Your task to perform on an android device: turn off translation in the chrome app Image 0: 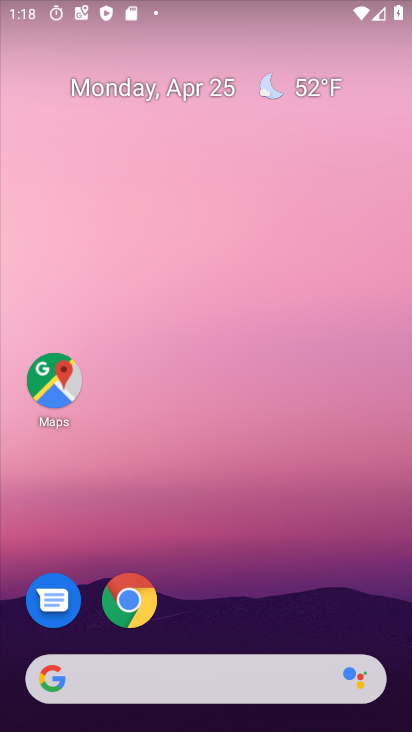
Step 0: press home button
Your task to perform on an android device: turn off translation in the chrome app Image 1: 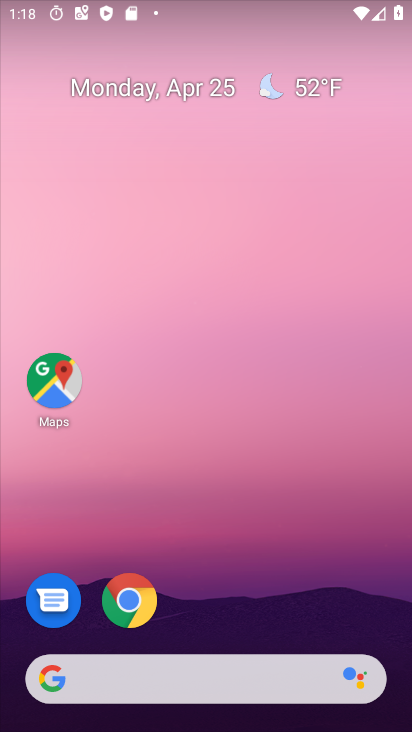
Step 1: drag from (138, 679) to (212, 162)
Your task to perform on an android device: turn off translation in the chrome app Image 2: 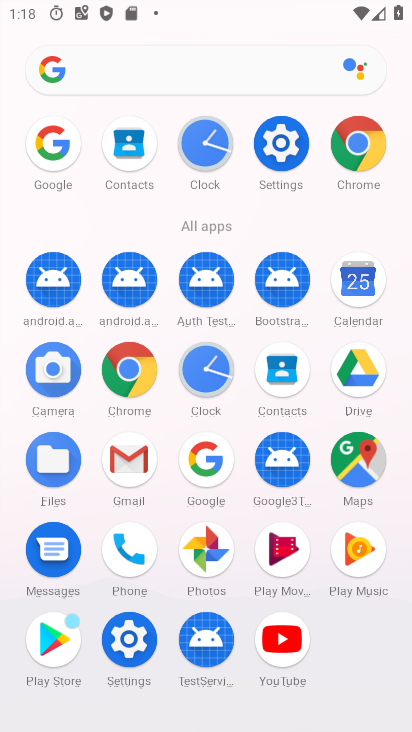
Step 2: click (355, 161)
Your task to perform on an android device: turn off translation in the chrome app Image 3: 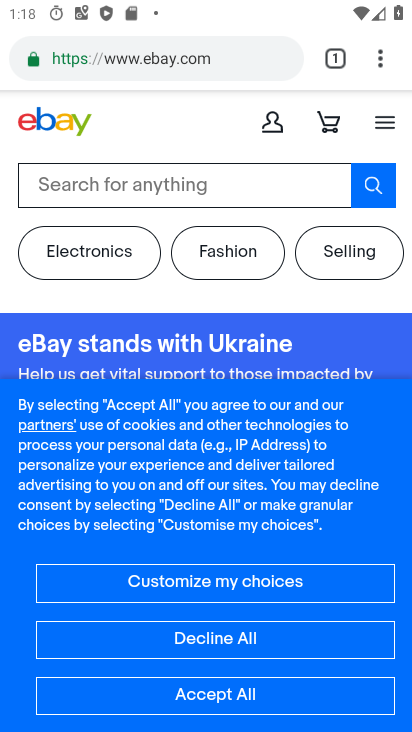
Step 3: drag from (380, 69) to (184, 621)
Your task to perform on an android device: turn off translation in the chrome app Image 4: 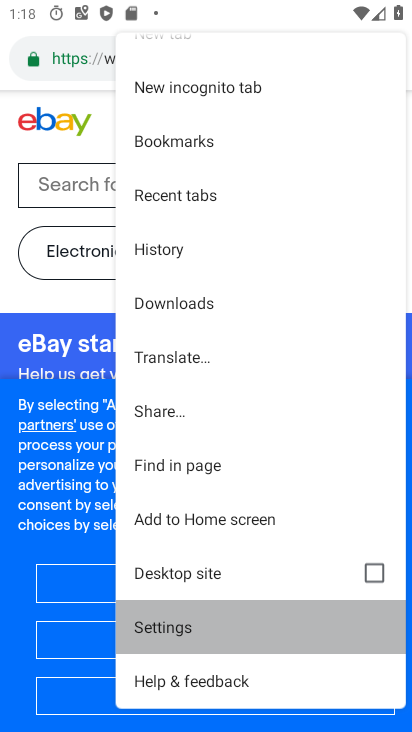
Step 4: click (186, 621)
Your task to perform on an android device: turn off translation in the chrome app Image 5: 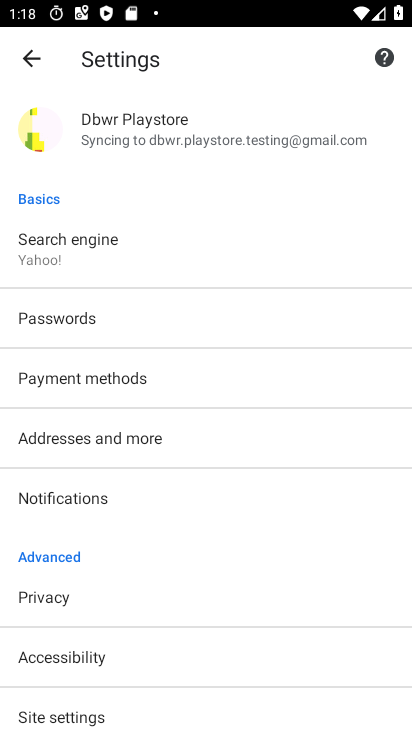
Step 5: drag from (118, 658) to (250, 304)
Your task to perform on an android device: turn off translation in the chrome app Image 6: 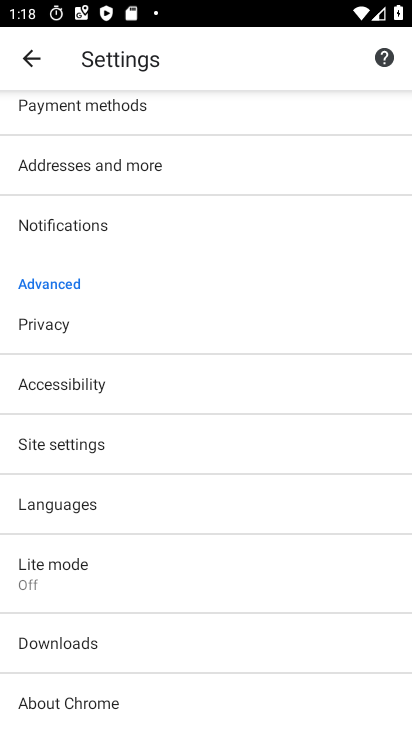
Step 6: click (103, 513)
Your task to perform on an android device: turn off translation in the chrome app Image 7: 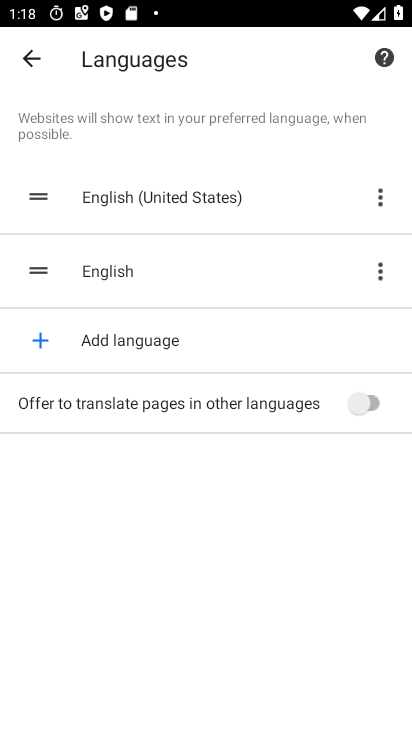
Step 7: task complete